Your task to perform on an android device: View the shopping cart on ebay.com. Image 0: 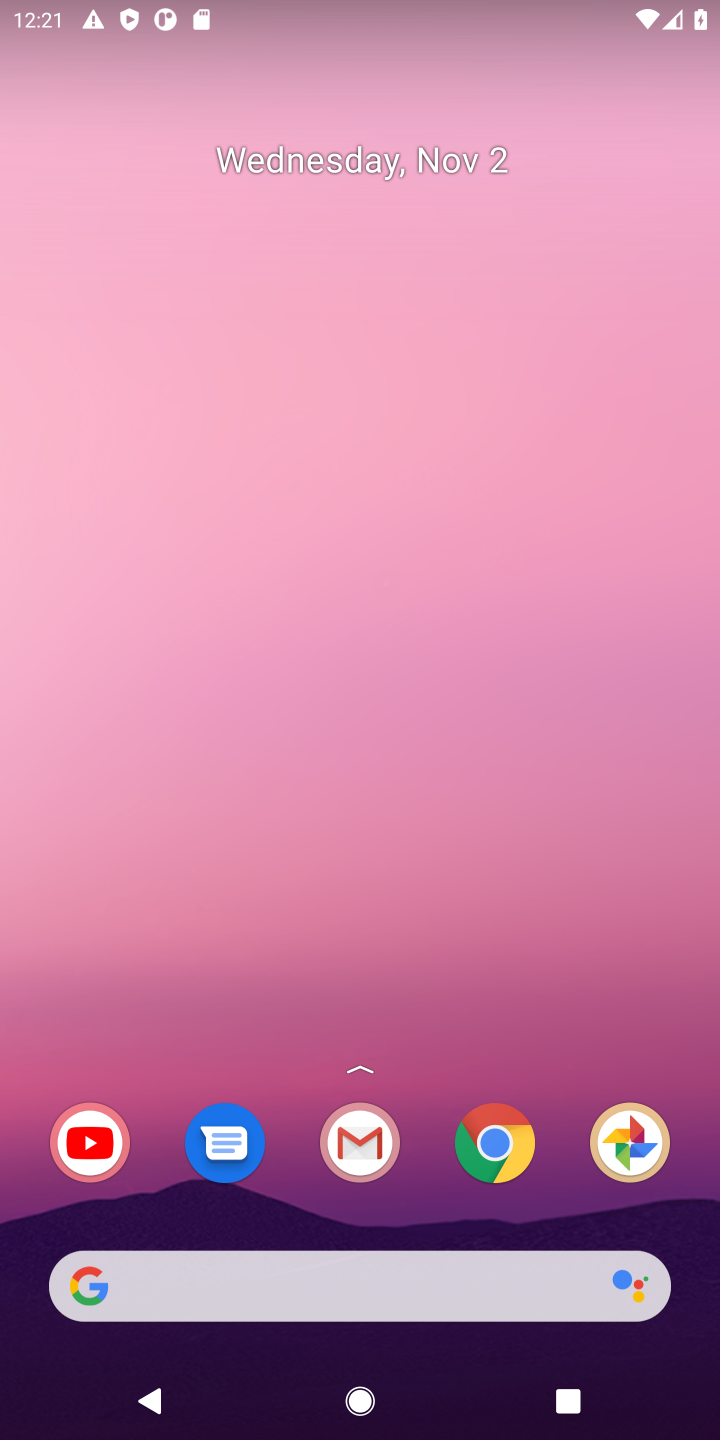
Step 0: press home button
Your task to perform on an android device: View the shopping cart on ebay.com. Image 1: 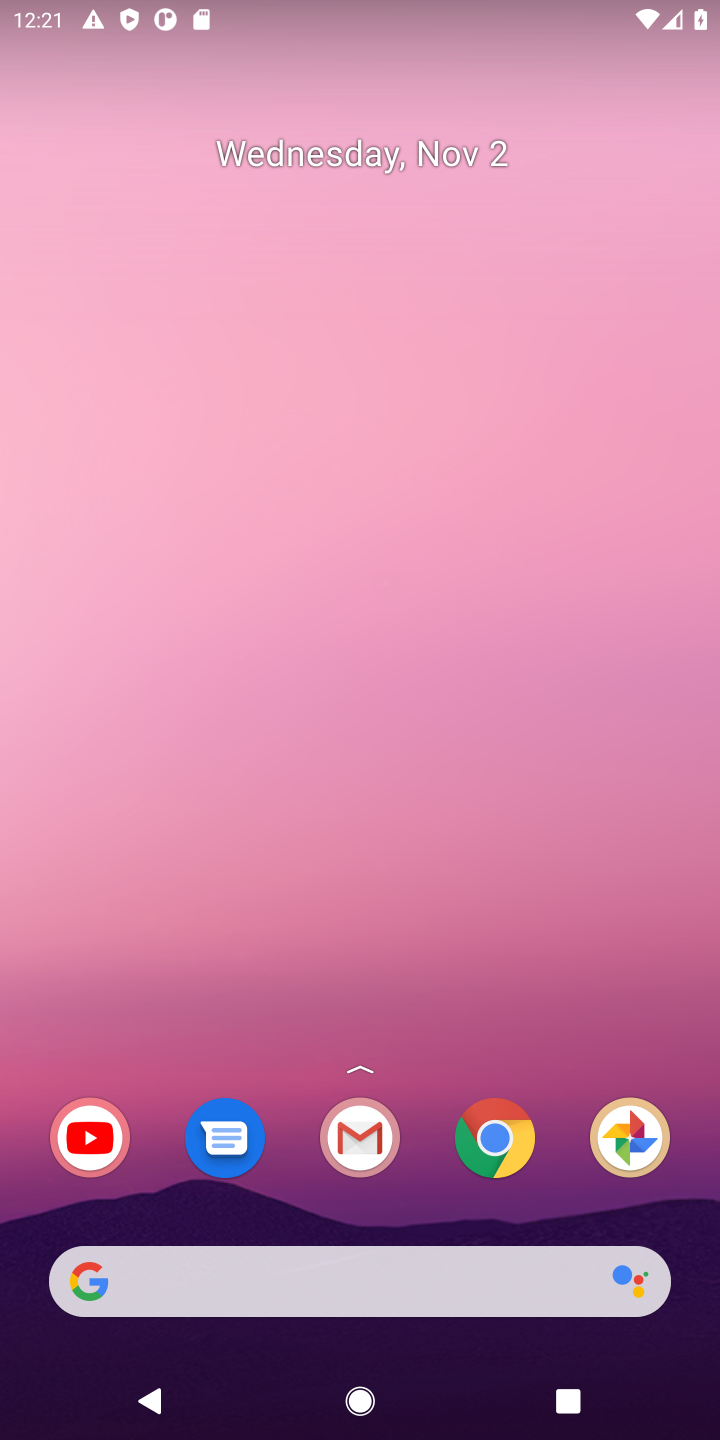
Step 1: click (143, 1279)
Your task to perform on an android device: View the shopping cart on ebay.com. Image 2: 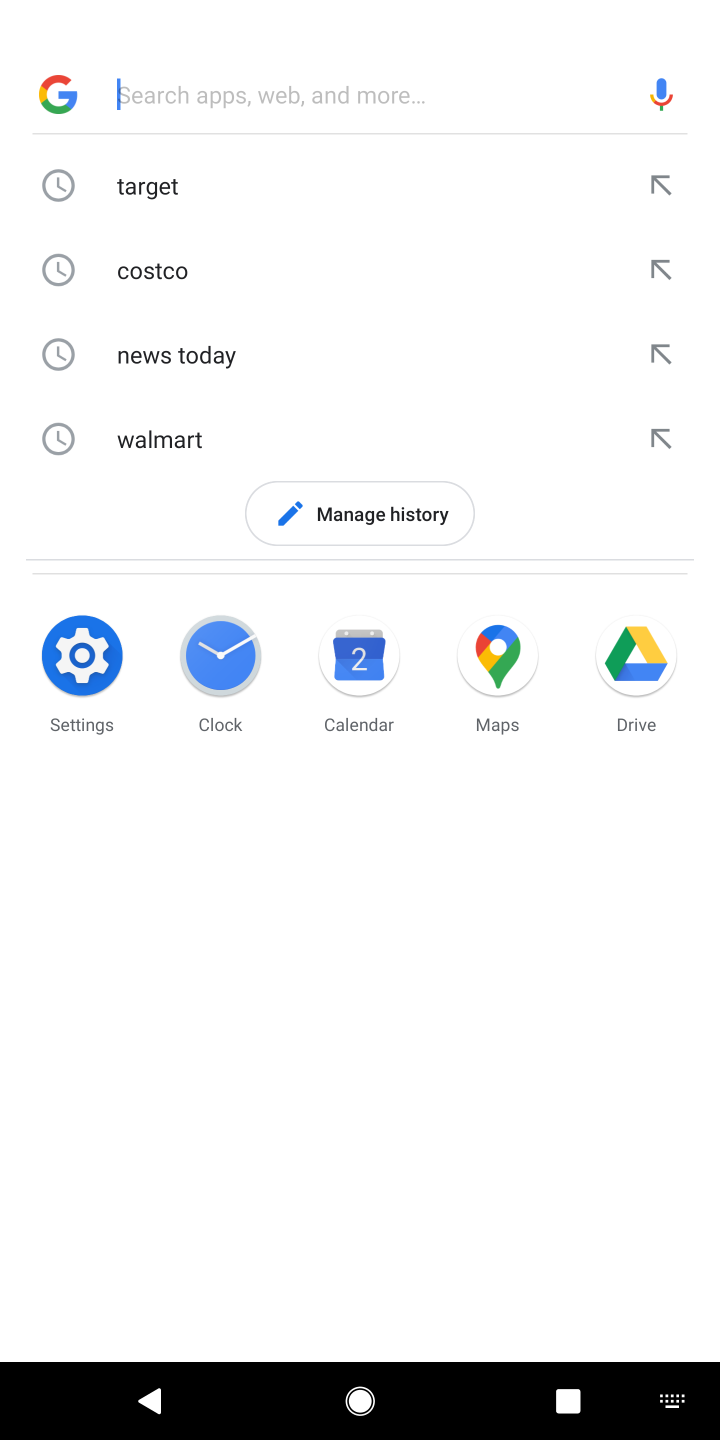
Step 2: type "ebay.com"
Your task to perform on an android device: View the shopping cart on ebay.com. Image 3: 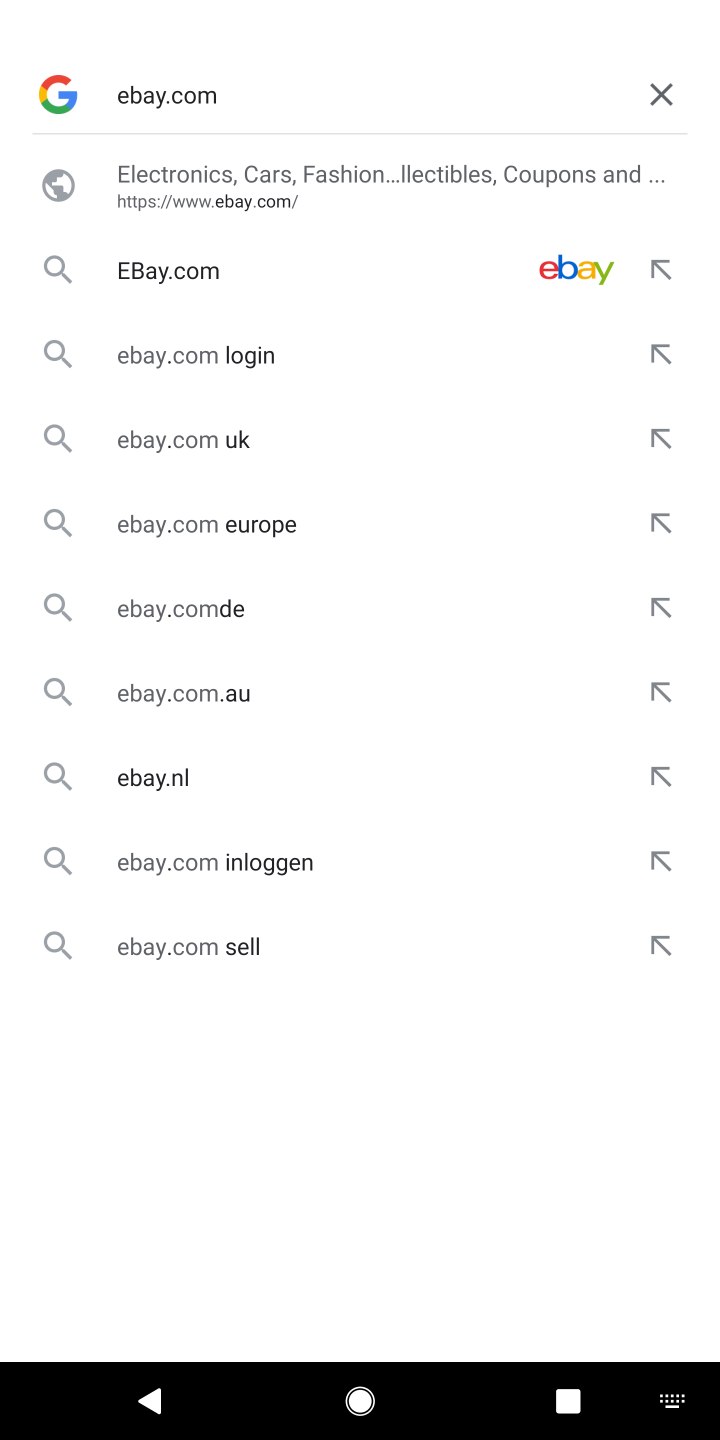
Step 3: press enter
Your task to perform on an android device: View the shopping cart on ebay.com. Image 4: 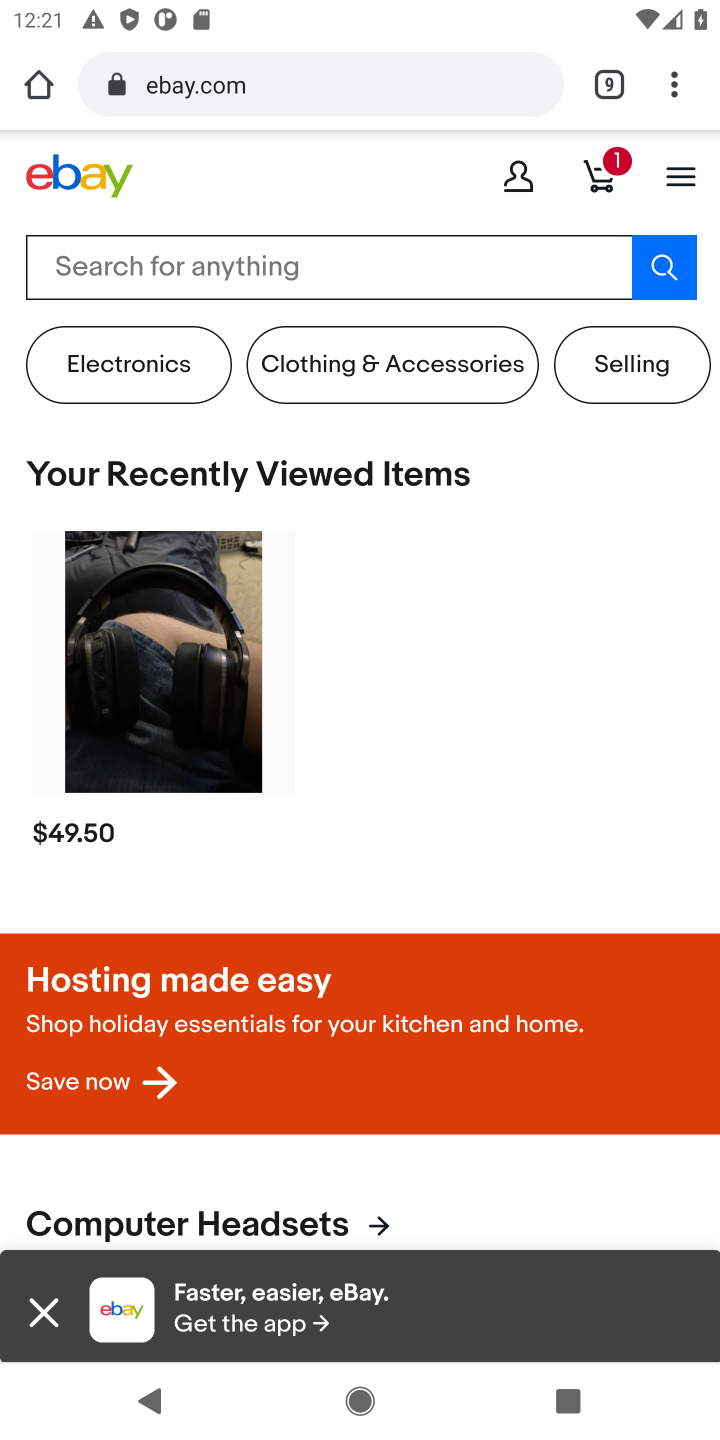
Step 4: click (601, 165)
Your task to perform on an android device: View the shopping cart on ebay.com. Image 5: 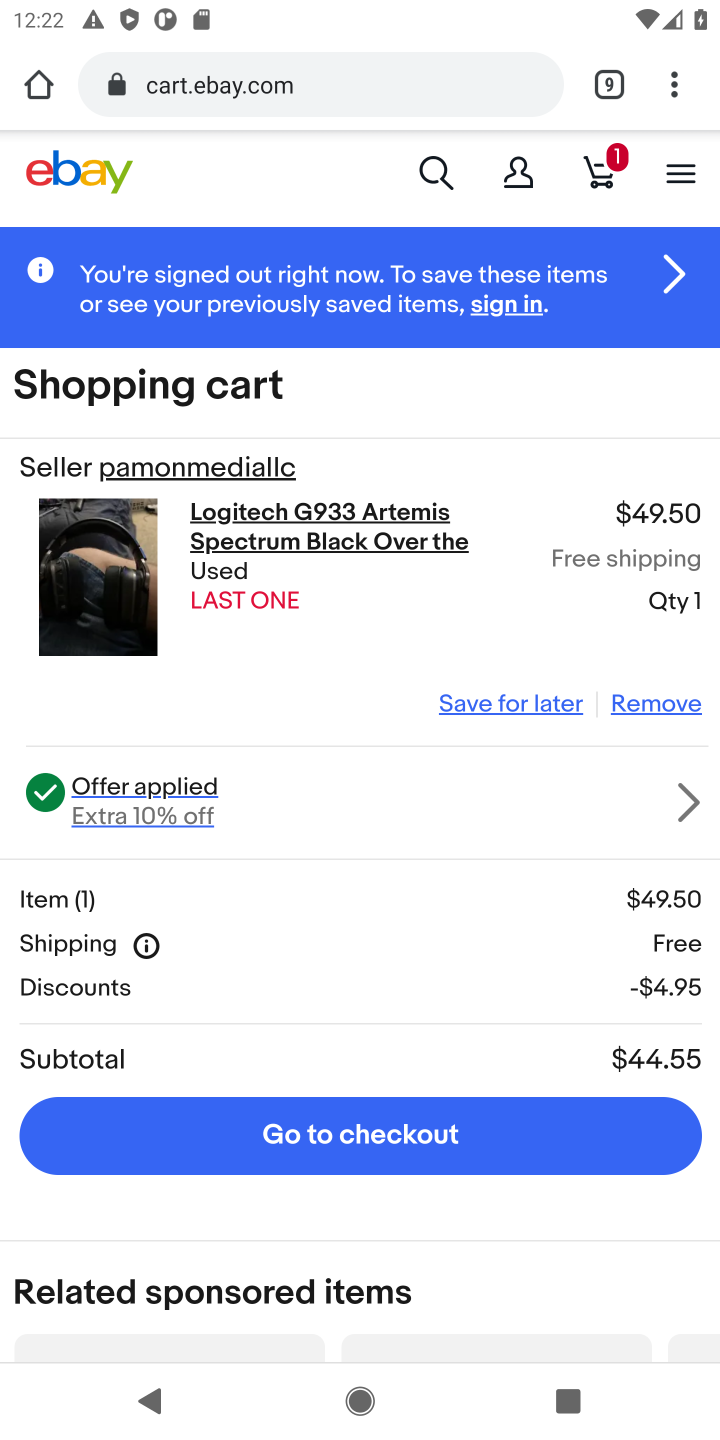
Step 5: task complete